Your task to perform on an android device: choose inbox layout in the gmail app Image 0: 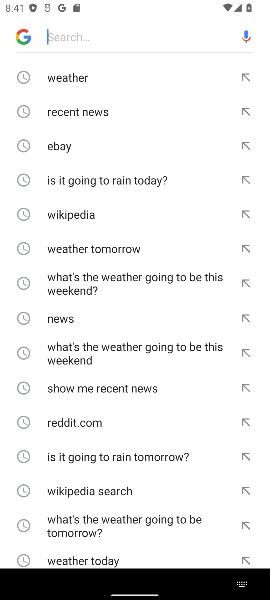
Step 0: press home button
Your task to perform on an android device: choose inbox layout in the gmail app Image 1: 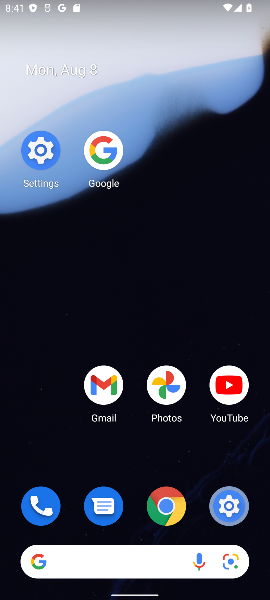
Step 1: click (99, 407)
Your task to perform on an android device: choose inbox layout in the gmail app Image 2: 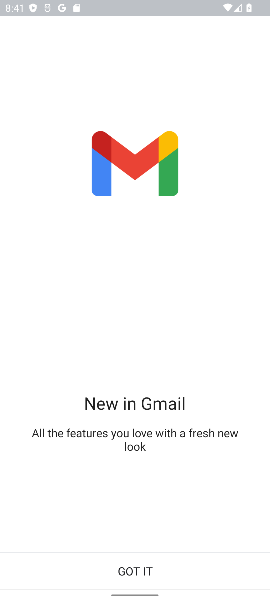
Step 2: click (170, 565)
Your task to perform on an android device: choose inbox layout in the gmail app Image 3: 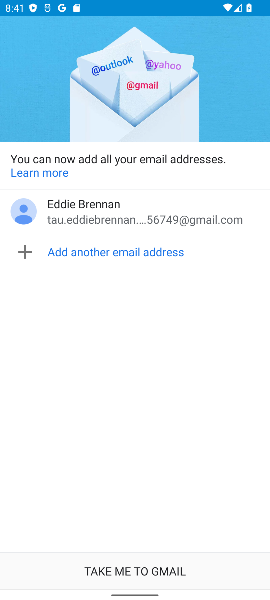
Step 3: click (170, 565)
Your task to perform on an android device: choose inbox layout in the gmail app Image 4: 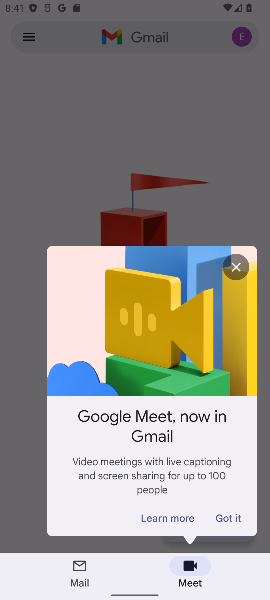
Step 4: click (29, 37)
Your task to perform on an android device: choose inbox layout in the gmail app Image 5: 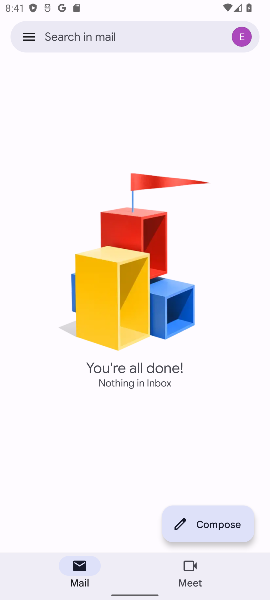
Step 5: click (27, 46)
Your task to perform on an android device: choose inbox layout in the gmail app Image 6: 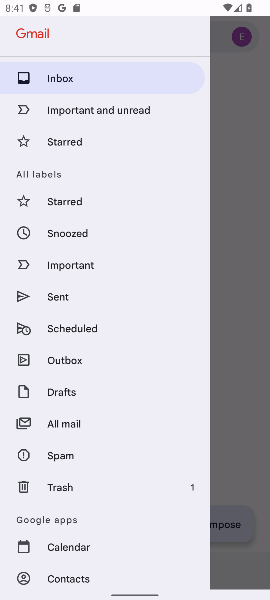
Step 6: drag from (133, 420) to (136, 203)
Your task to perform on an android device: choose inbox layout in the gmail app Image 7: 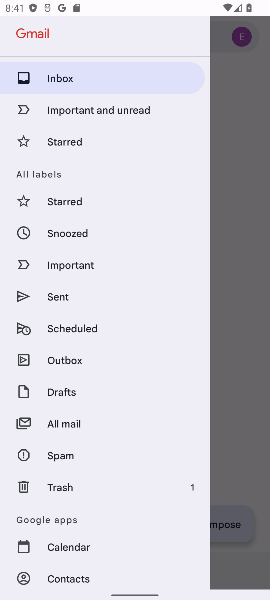
Step 7: drag from (119, 504) to (181, 176)
Your task to perform on an android device: choose inbox layout in the gmail app Image 8: 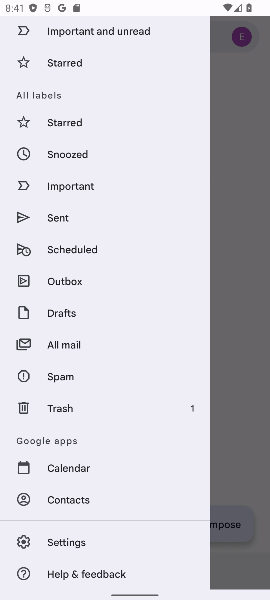
Step 8: click (75, 548)
Your task to perform on an android device: choose inbox layout in the gmail app Image 9: 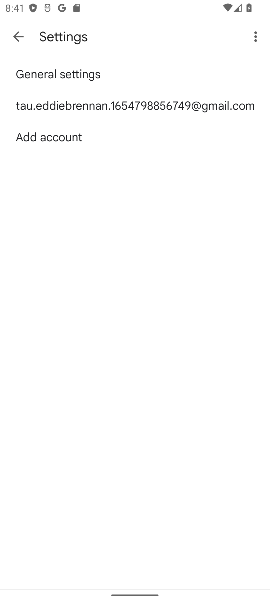
Step 9: click (74, 118)
Your task to perform on an android device: choose inbox layout in the gmail app Image 10: 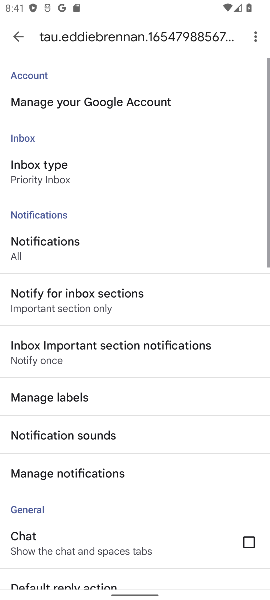
Step 10: click (90, 179)
Your task to perform on an android device: choose inbox layout in the gmail app Image 11: 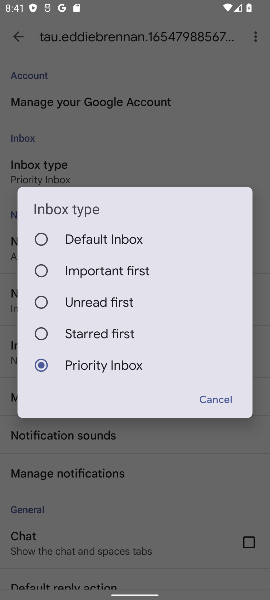
Step 11: click (120, 232)
Your task to perform on an android device: choose inbox layout in the gmail app Image 12: 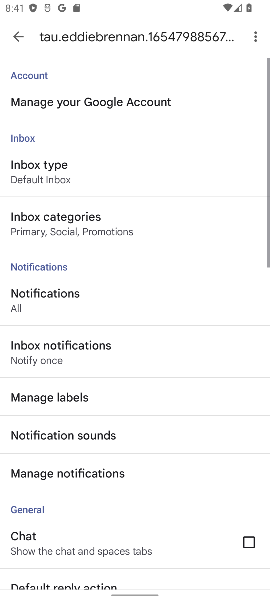
Step 12: task complete